Your task to perform on an android device: turn notification dots off Image 0: 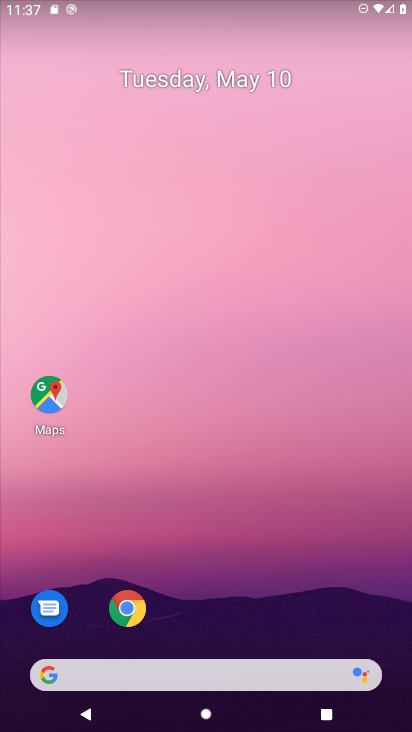
Step 0: drag from (278, 532) to (252, 45)
Your task to perform on an android device: turn notification dots off Image 1: 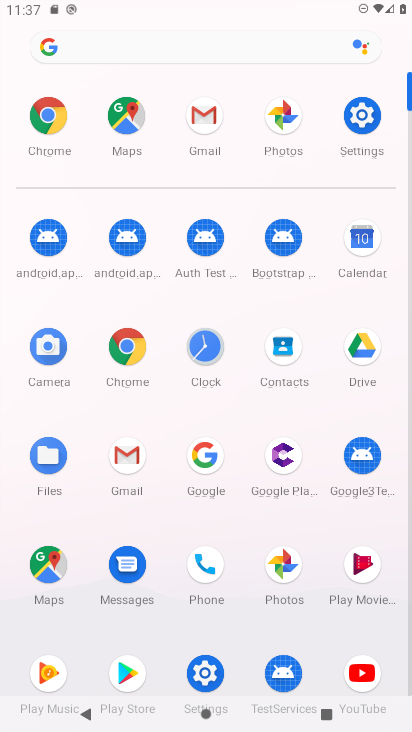
Step 1: click (367, 115)
Your task to perform on an android device: turn notification dots off Image 2: 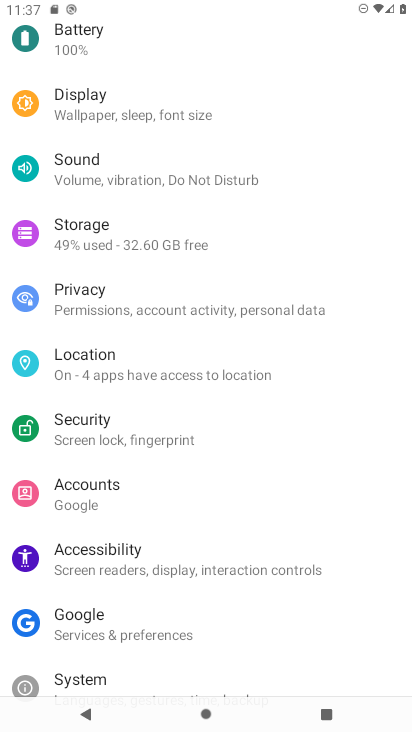
Step 2: drag from (206, 144) to (234, 468)
Your task to perform on an android device: turn notification dots off Image 3: 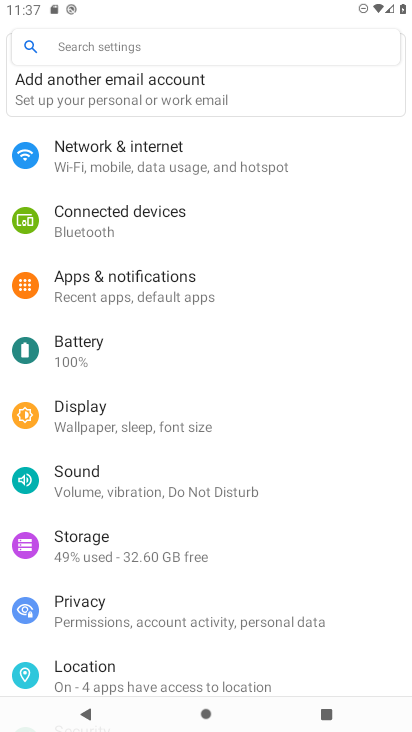
Step 3: click (184, 277)
Your task to perform on an android device: turn notification dots off Image 4: 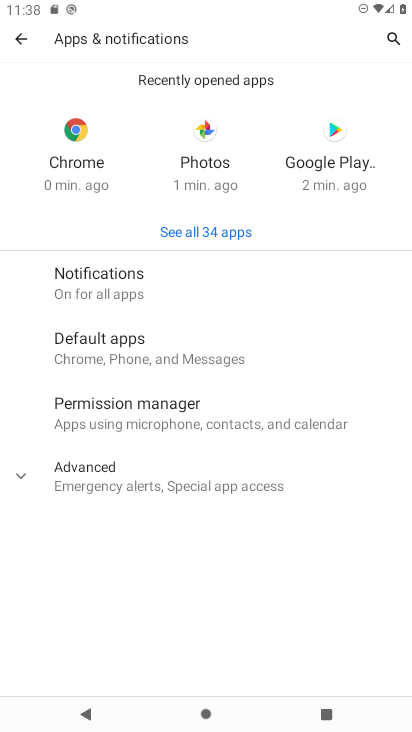
Step 4: click (25, 470)
Your task to perform on an android device: turn notification dots off Image 5: 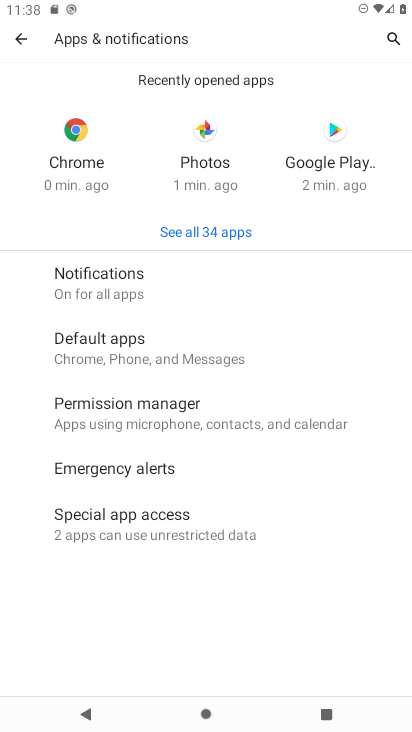
Step 5: click (140, 284)
Your task to perform on an android device: turn notification dots off Image 6: 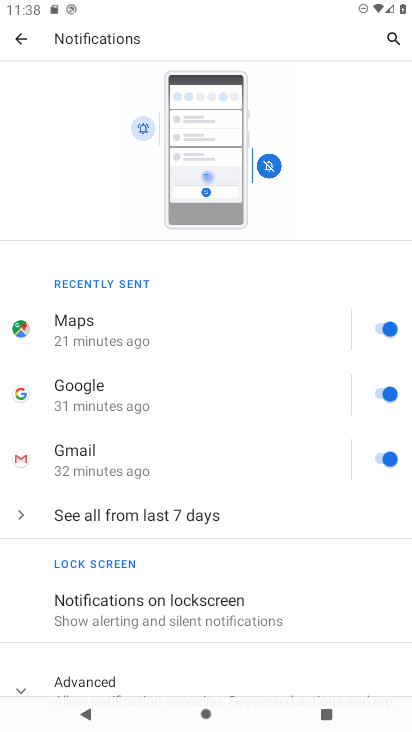
Step 6: drag from (182, 571) to (202, 259)
Your task to perform on an android device: turn notification dots off Image 7: 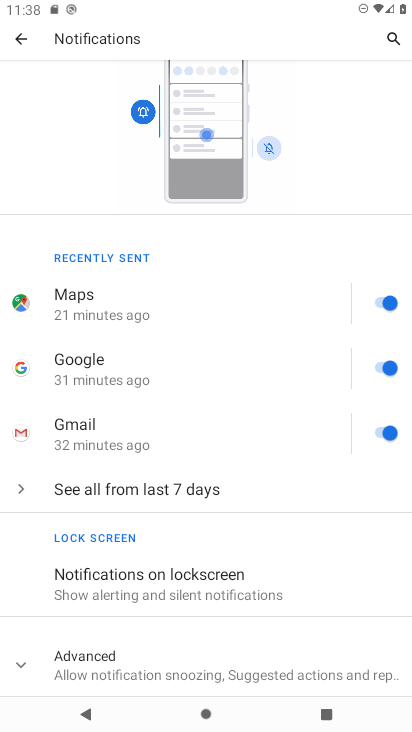
Step 7: click (21, 657)
Your task to perform on an android device: turn notification dots off Image 8: 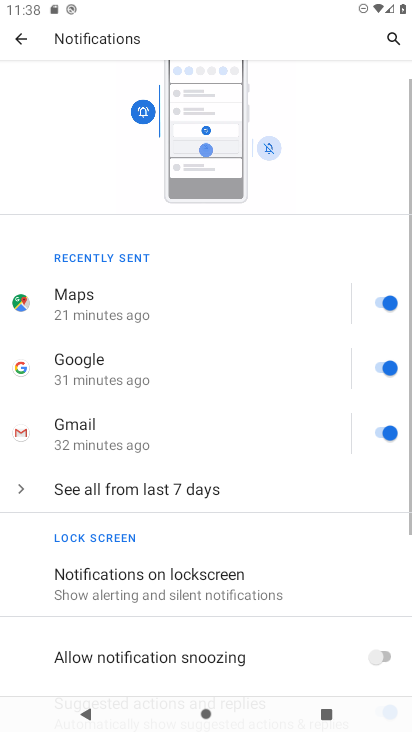
Step 8: drag from (184, 472) to (209, 117)
Your task to perform on an android device: turn notification dots off Image 9: 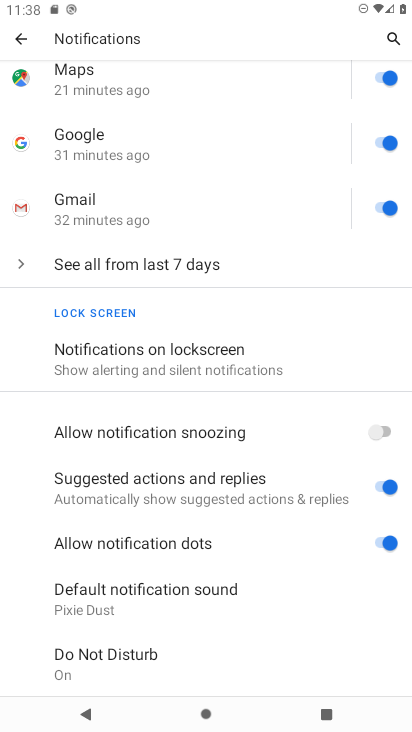
Step 9: click (378, 544)
Your task to perform on an android device: turn notification dots off Image 10: 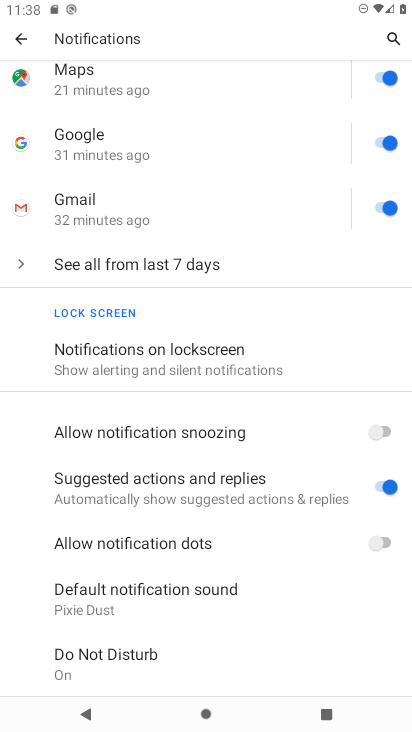
Step 10: task complete